Your task to perform on an android device: Go to Reddit.com Image 0: 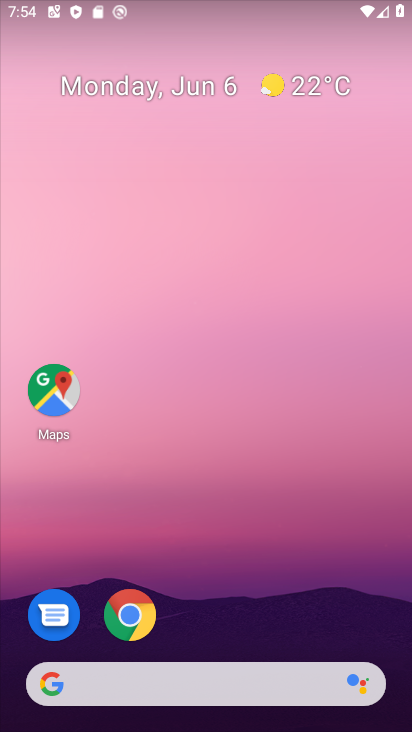
Step 0: click (116, 615)
Your task to perform on an android device: Go to Reddit.com Image 1: 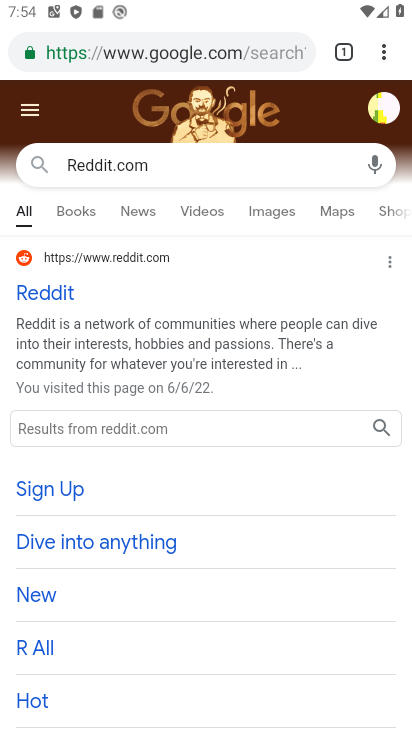
Step 1: task complete